Your task to perform on an android device: turn on sleep mode Image 0: 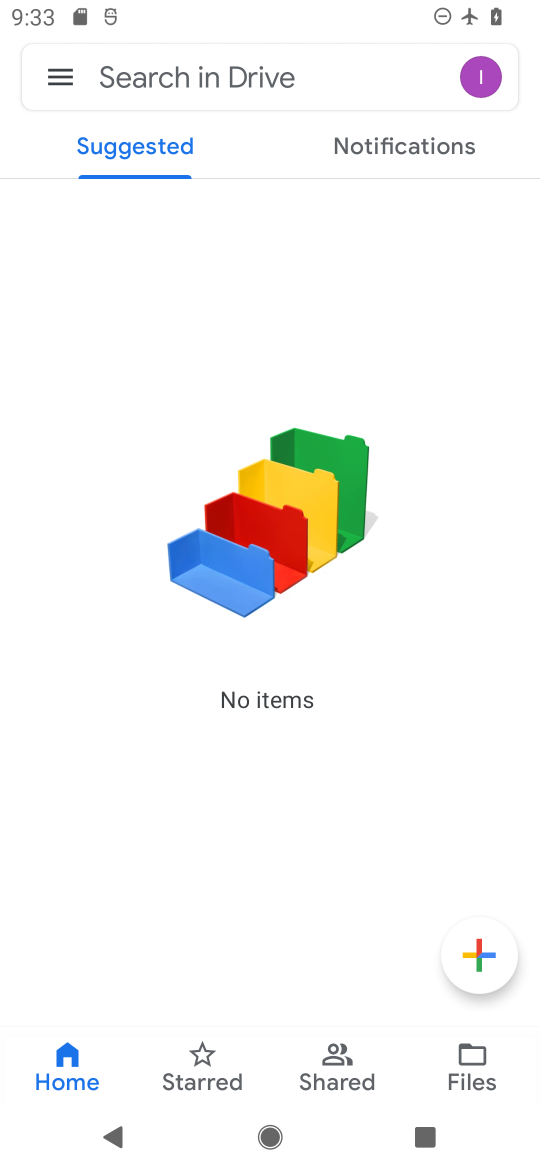
Step 0: press home button
Your task to perform on an android device: turn on sleep mode Image 1: 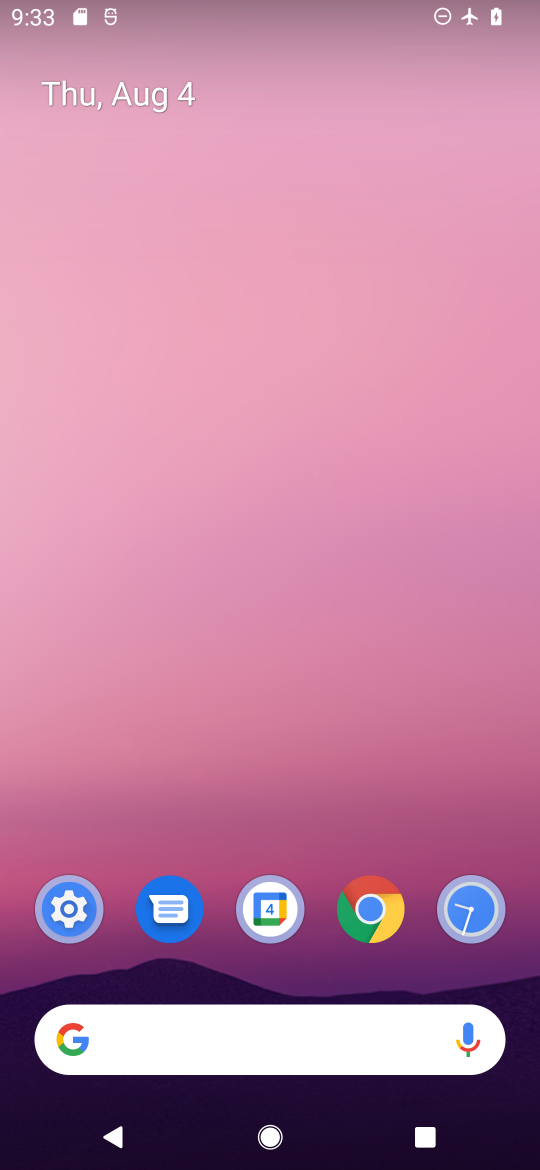
Step 1: drag from (335, 832) to (340, 318)
Your task to perform on an android device: turn on sleep mode Image 2: 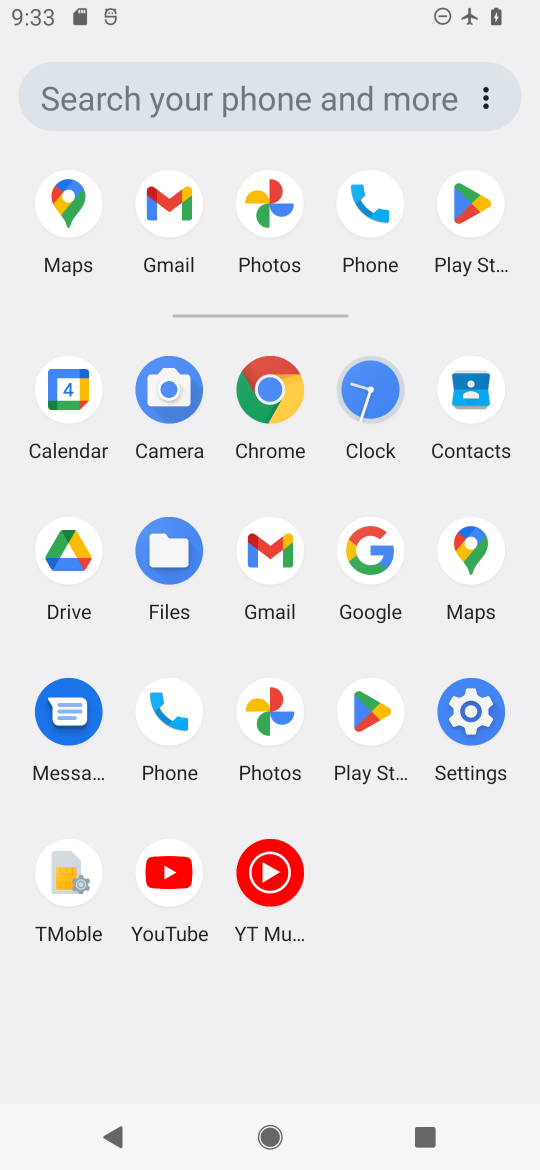
Step 2: click (469, 709)
Your task to perform on an android device: turn on sleep mode Image 3: 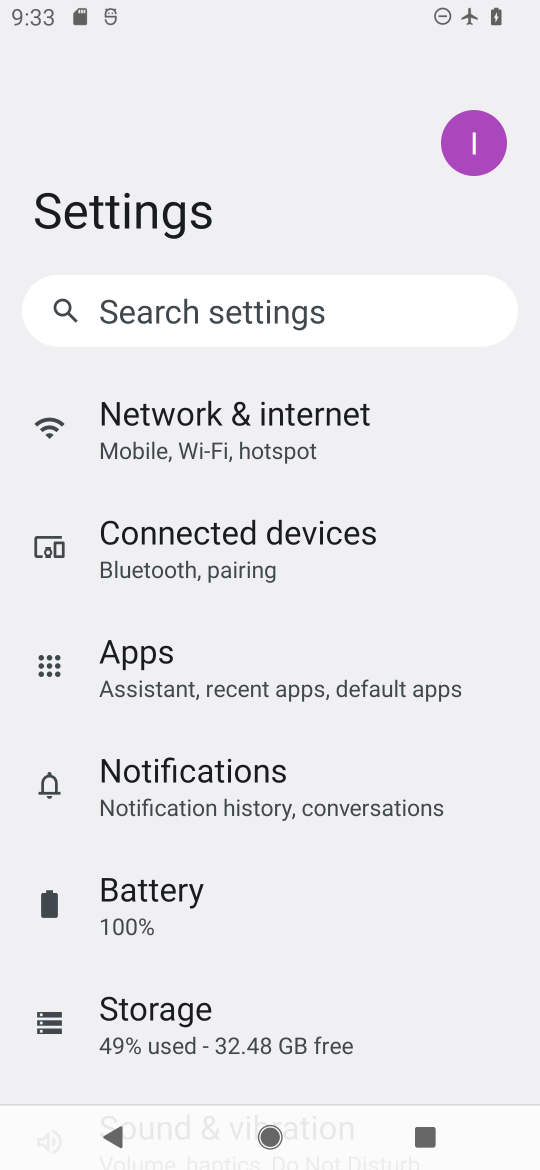
Step 3: drag from (426, 916) to (417, 778)
Your task to perform on an android device: turn on sleep mode Image 4: 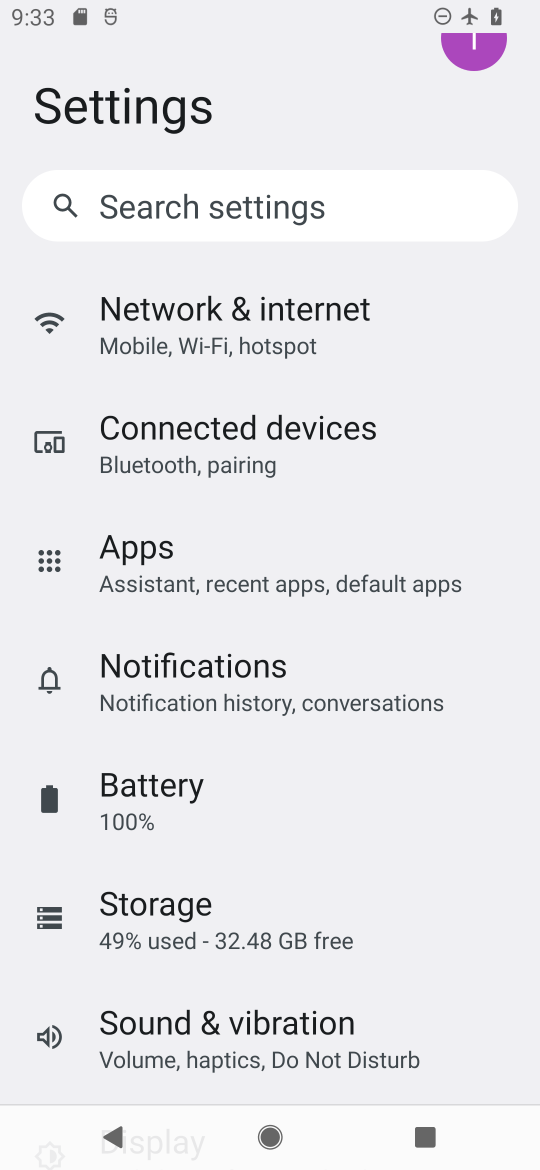
Step 4: drag from (442, 809) to (452, 747)
Your task to perform on an android device: turn on sleep mode Image 5: 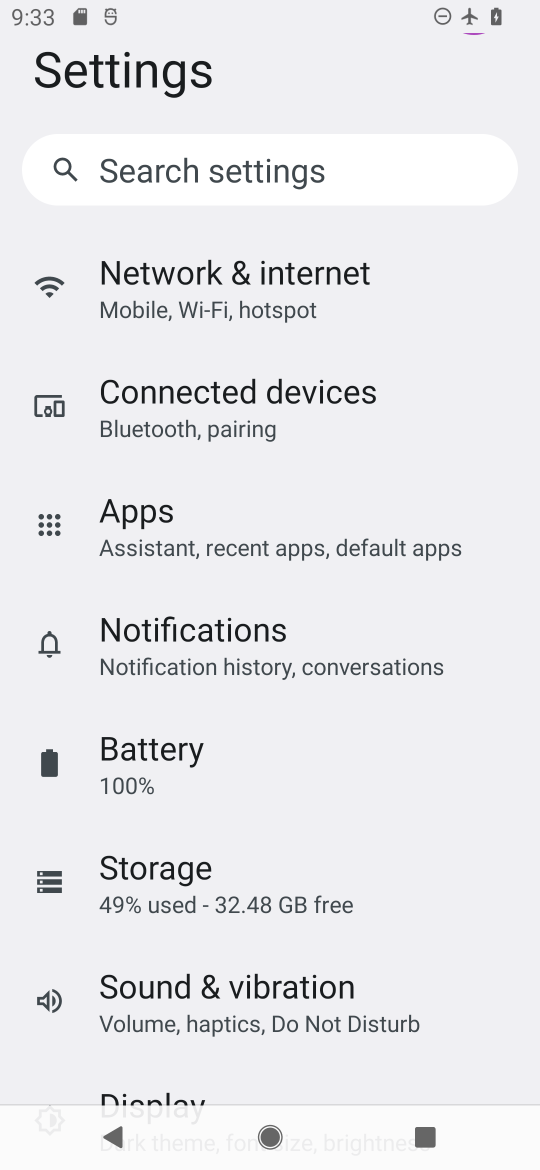
Step 5: drag from (443, 983) to (460, 786)
Your task to perform on an android device: turn on sleep mode Image 6: 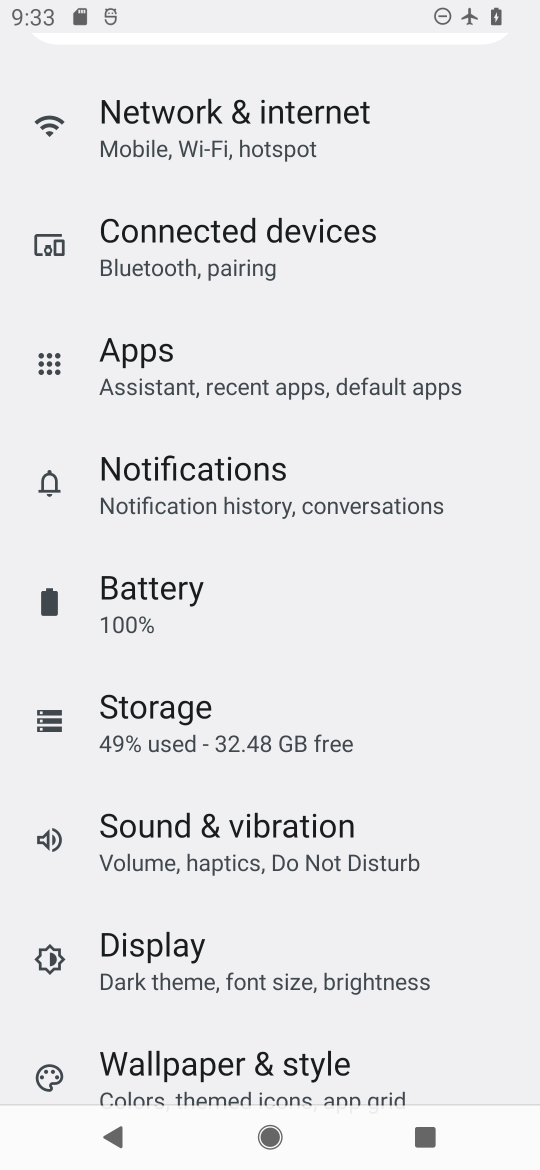
Step 6: drag from (472, 1022) to (481, 849)
Your task to perform on an android device: turn on sleep mode Image 7: 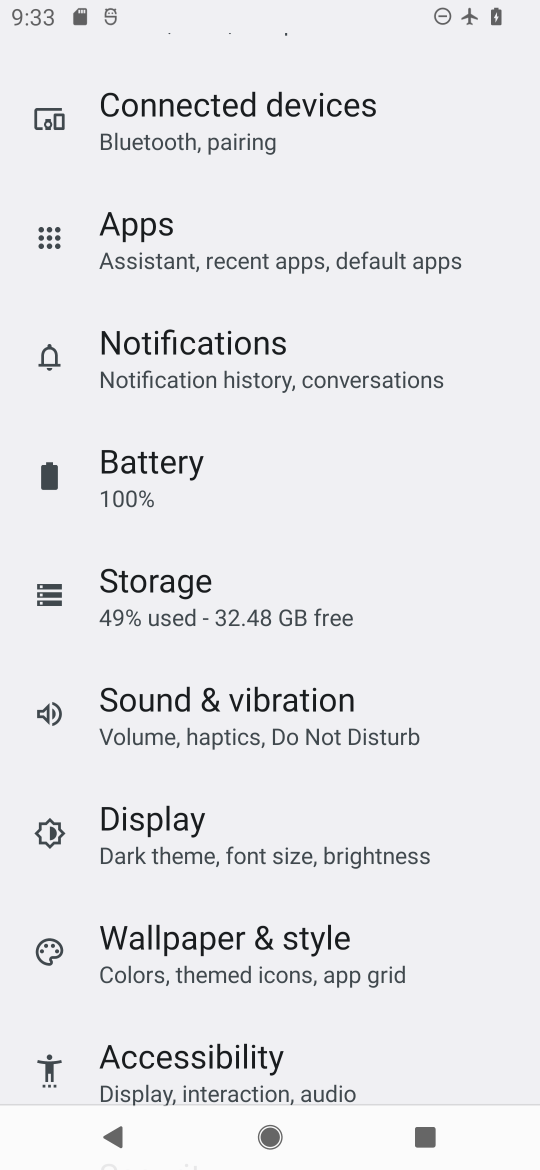
Step 7: drag from (444, 976) to (459, 805)
Your task to perform on an android device: turn on sleep mode Image 8: 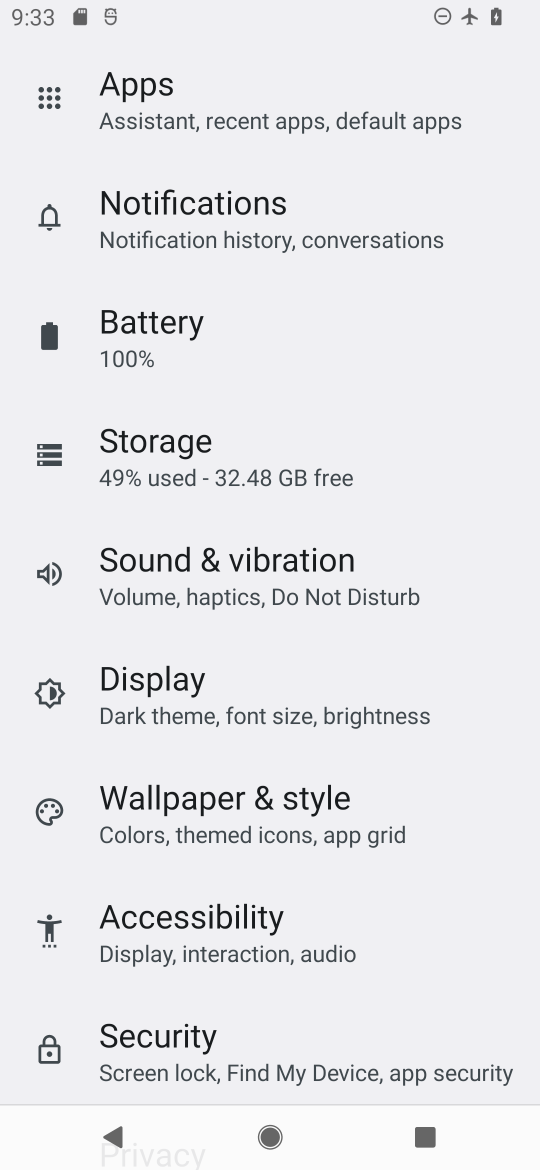
Step 8: drag from (443, 992) to (462, 800)
Your task to perform on an android device: turn on sleep mode Image 9: 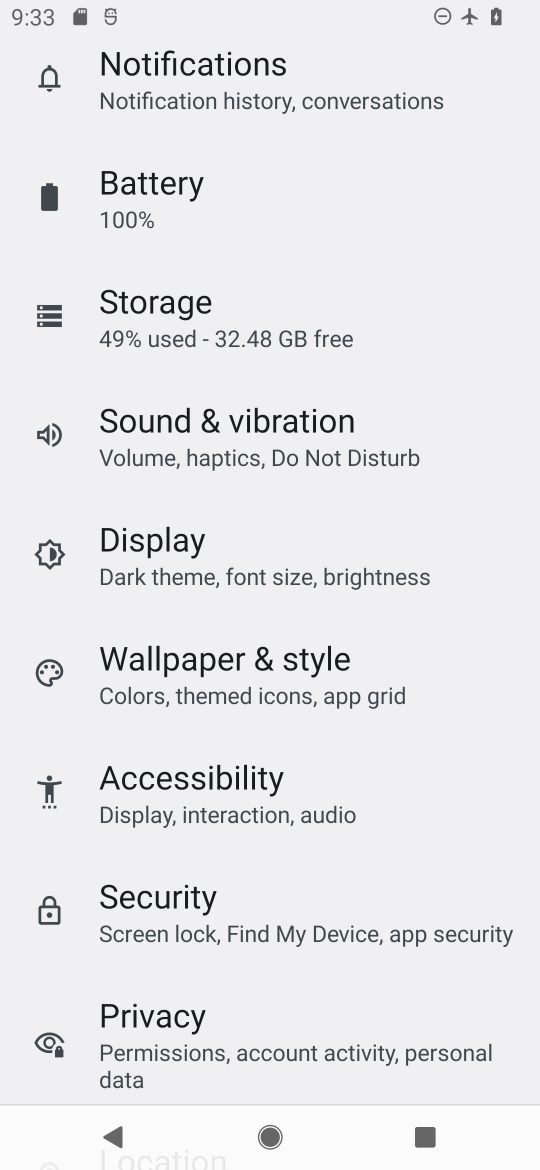
Step 9: drag from (454, 1000) to (465, 841)
Your task to perform on an android device: turn on sleep mode Image 10: 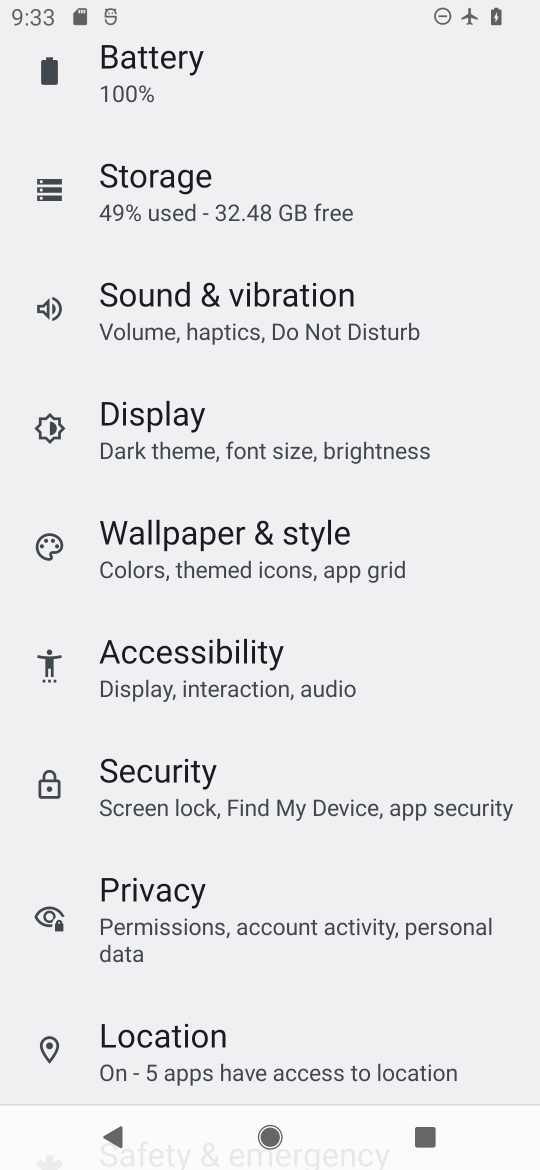
Step 10: drag from (416, 979) to (436, 770)
Your task to perform on an android device: turn on sleep mode Image 11: 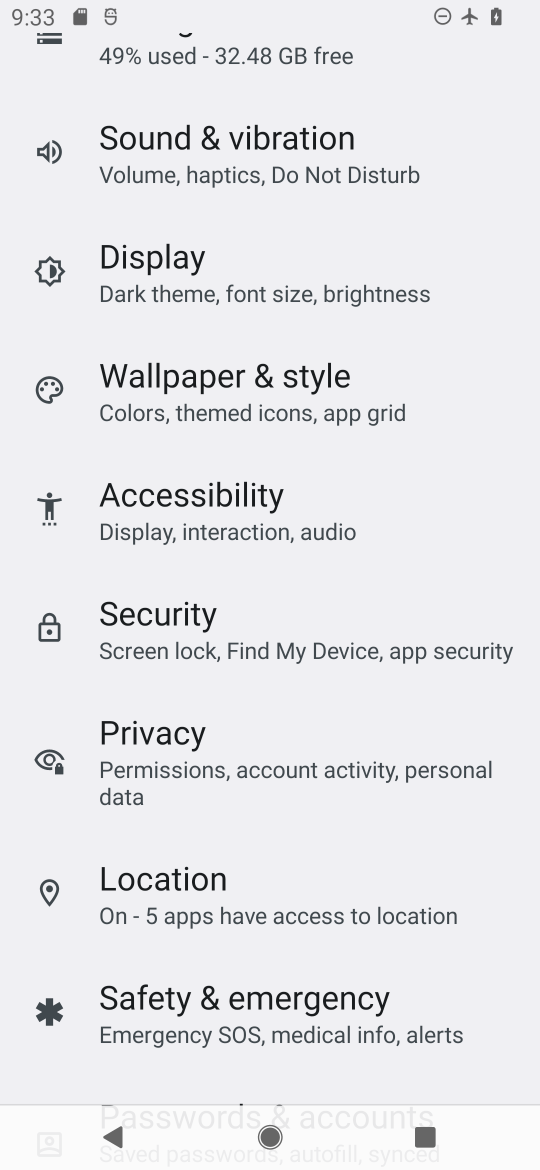
Step 11: drag from (443, 909) to (443, 744)
Your task to perform on an android device: turn on sleep mode Image 12: 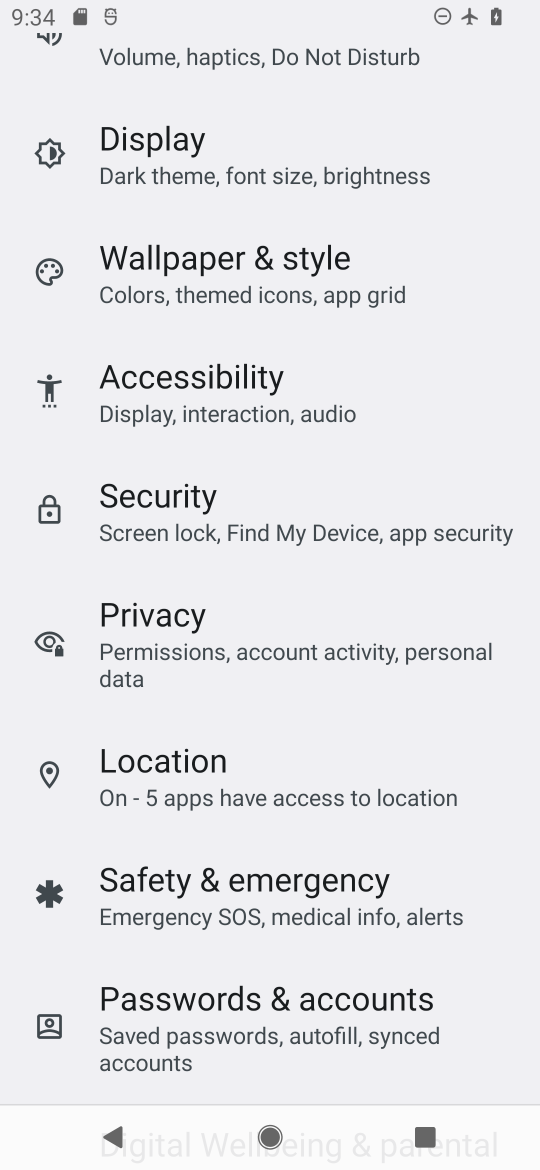
Step 12: drag from (458, 968) to (450, 724)
Your task to perform on an android device: turn on sleep mode Image 13: 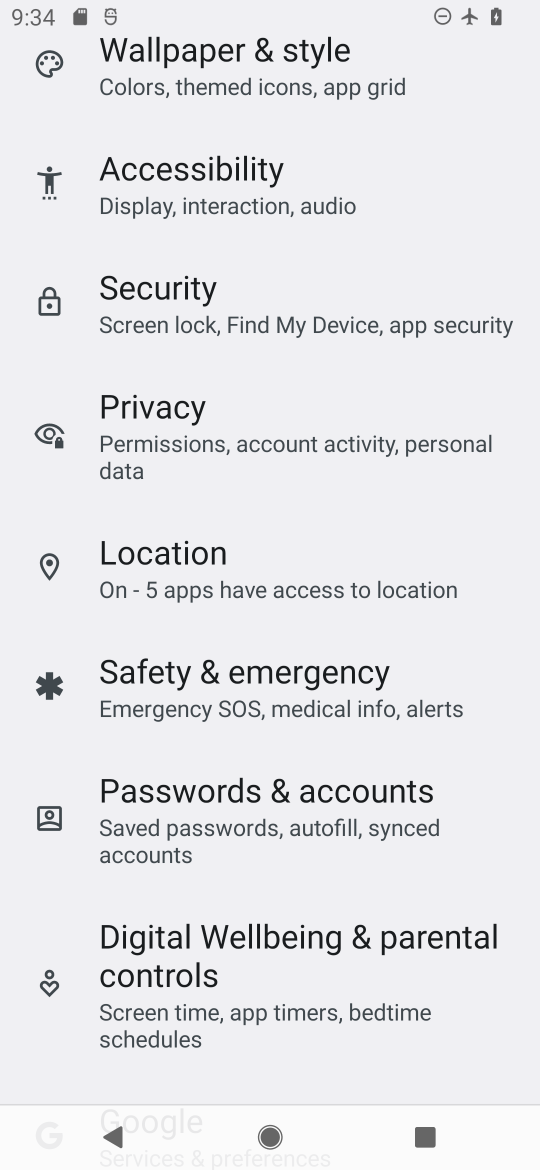
Step 13: drag from (442, 472) to (431, 648)
Your task to perform on an android device: turn on sleep mode Image 14: 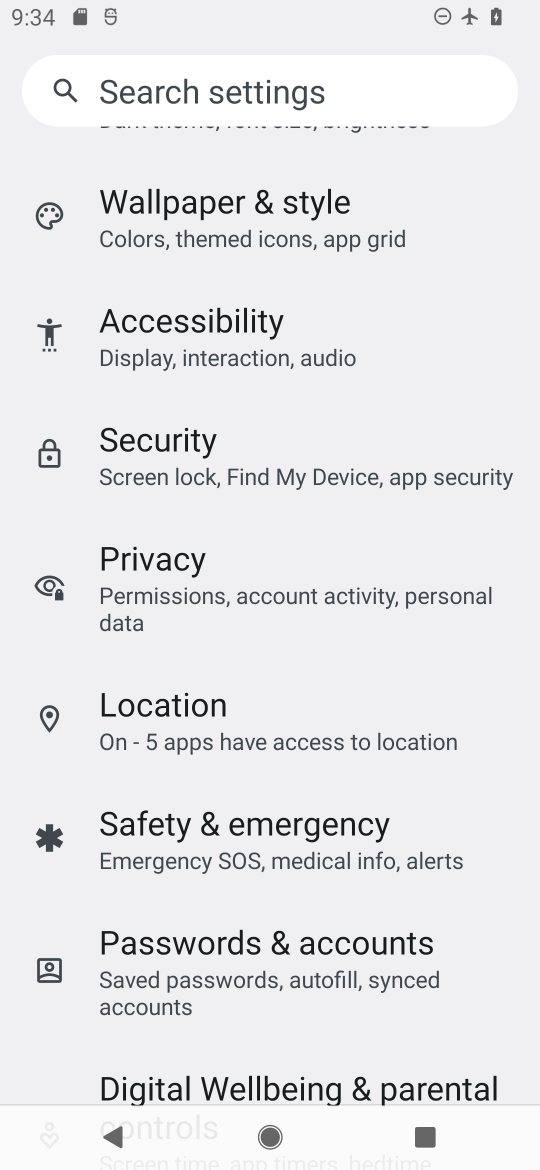
Step 14: drag from (432, 371) to (429, 601)
Your task to perform on an android device: turn on sleep mode Image 15: 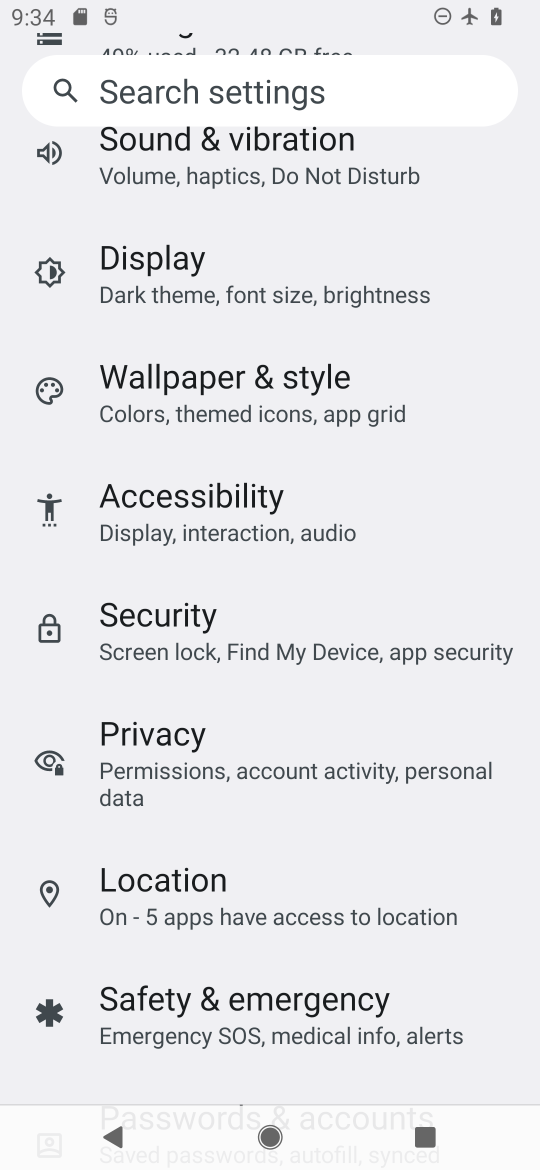
Step 15: drag from (442, 387) to (450, 610)
Your task to perform on an android device: turn on sleep mode Image 16: 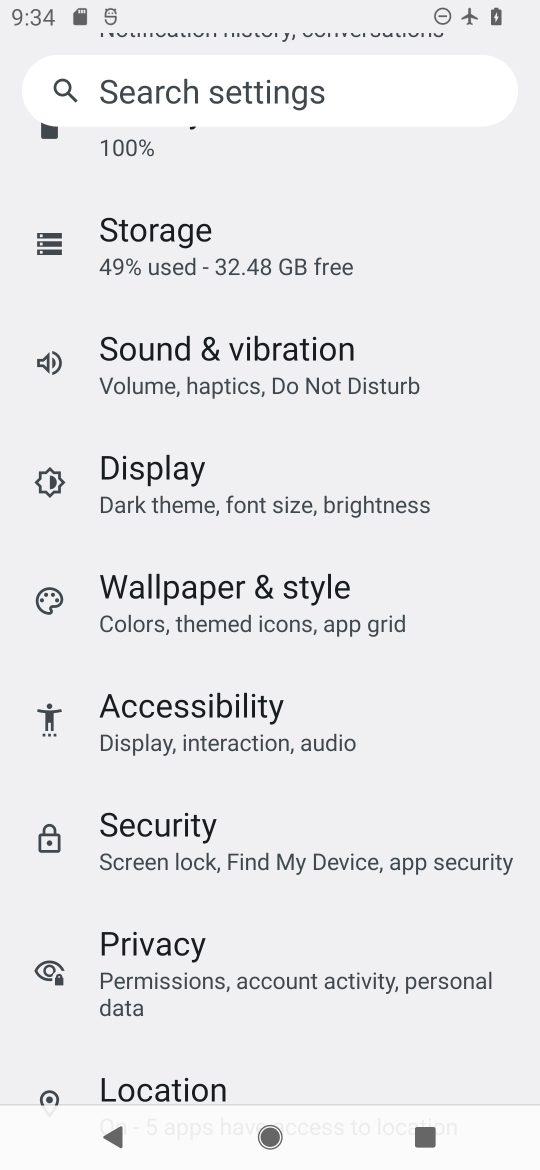
Step 16: click (428, 494)
Your task to perform on an android device: turn on sleep mode Image 17: 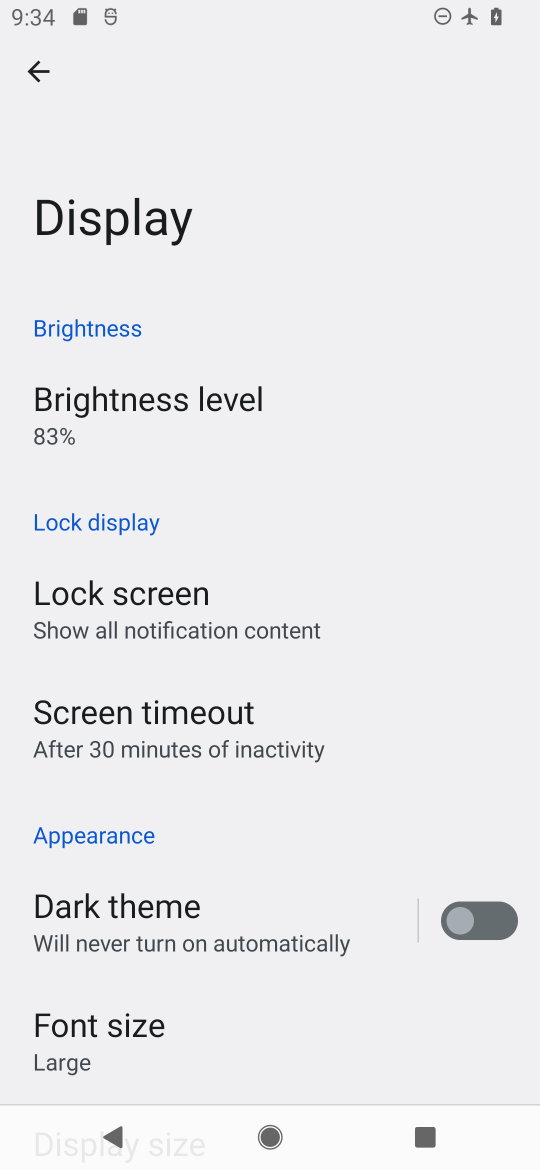
Step 17: task complete